Your task to perform on an android device: turn on showing notifications on the lock screen Image 0: 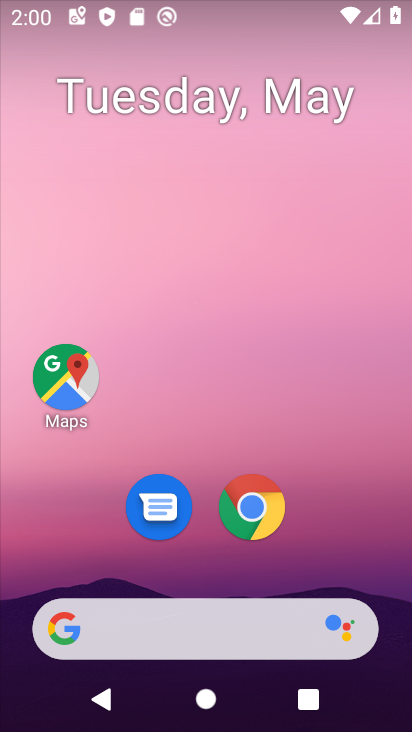
Step 0: drag from (311, 575) to (381, 52)
Your task to perform on an android device: turn on showing notifications on the lock screen Image 1: 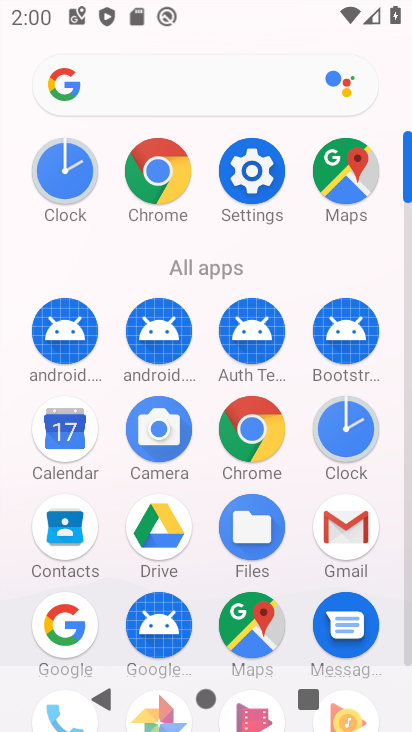
Step 1: click (241, 167)
Your task to perform on an android device: turn on showing notifications on the lock screen Image 2: 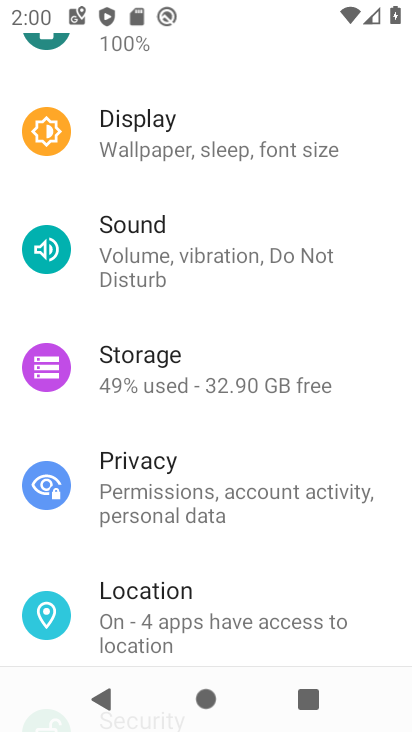
Step 2: drag from (203, 238) to (251, 447)
Your task to perform on an android device: turn on showing notifications on the lock screen Image 3: 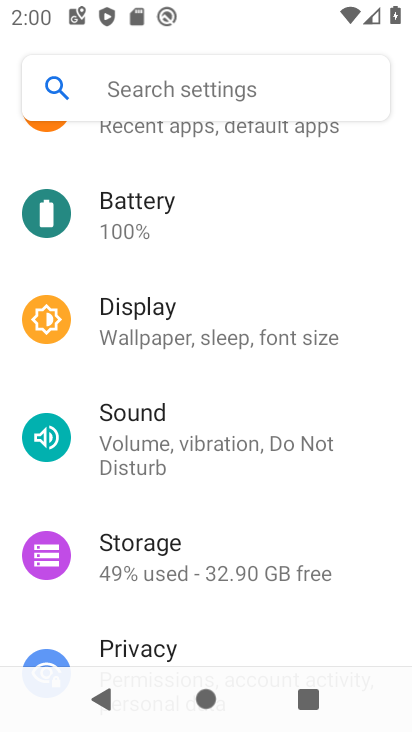
Step 3: drag from (206, 283) to (209, 463)
Your task to perform on an android device: turn on showing notifications on the lock screen Image 4: 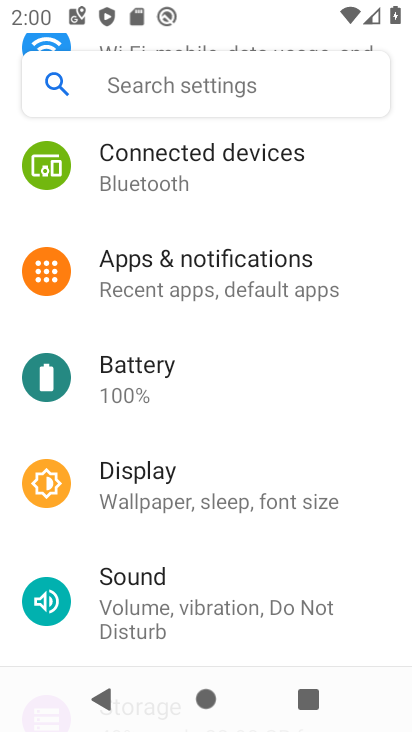
Step 4: click (158, 264)
Your task to perform on an android device: turn on showing notifications on the lock screen Image 5: 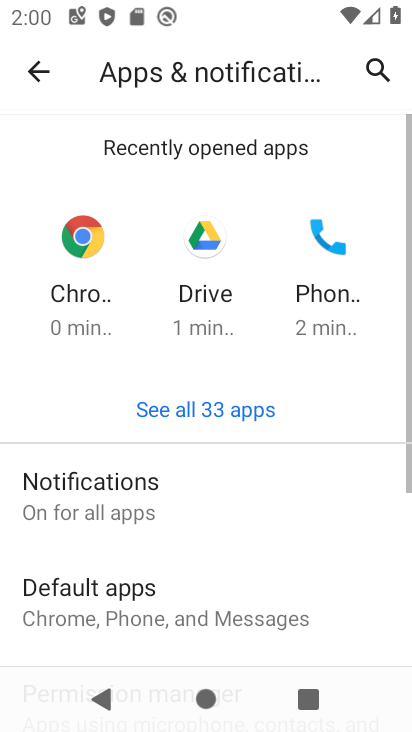
Step 5: click (164, 500)
Your task to perform on an android device: turn on showing notifications on the lock screen Image 6: 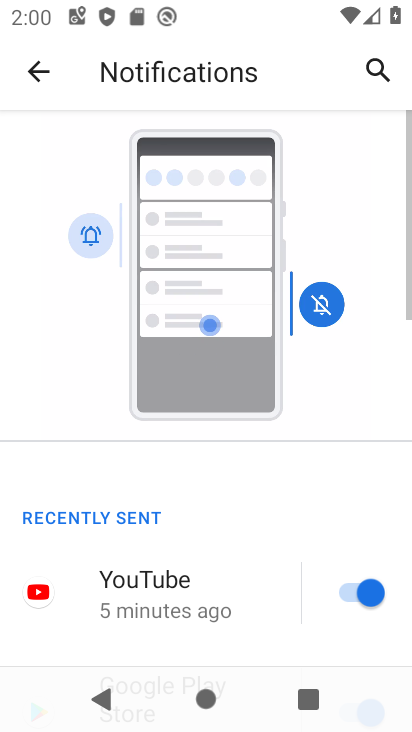
Step 6: drag from (159, 535) to (192, 169)
Your task to perform on an android device: turn on showing notifications on the lock screen Image 7: 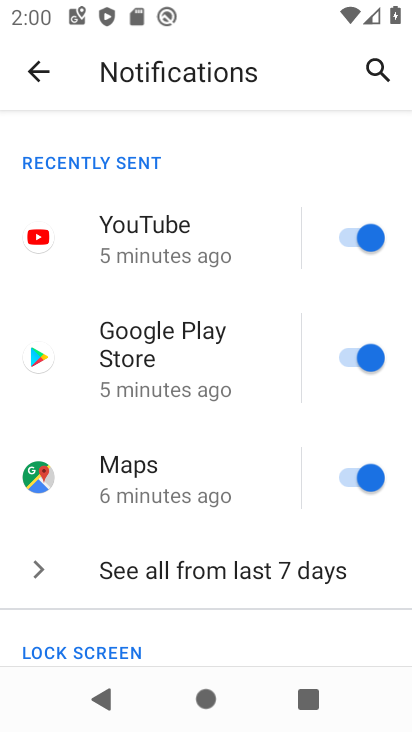
Step 7: drag from (150, 498) to (168, 222)
Your task to perform on an android device: turn on showing notifications on the lock screen Image 8: 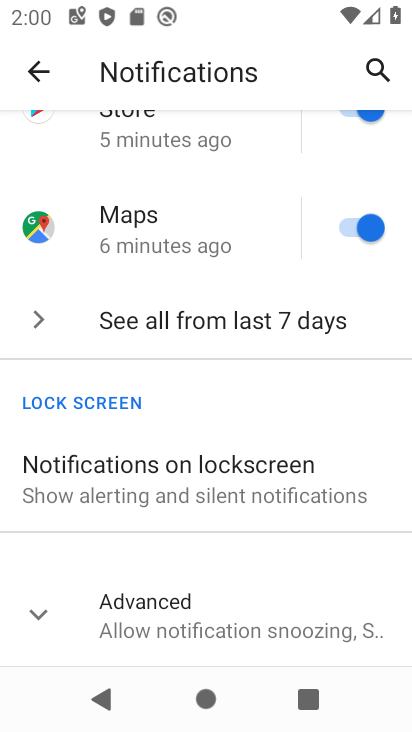
Step 8: click (136, 463)
Your task to perform on an android device: turn on showing notifications on the lock screen Image 9: 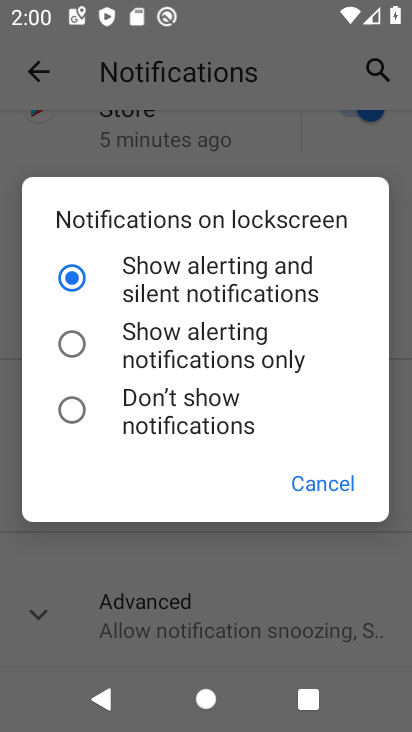
Step 9: click (144, 279)
Your task to perform on an android device: turn on showing notifications on the lock screen Image 10: 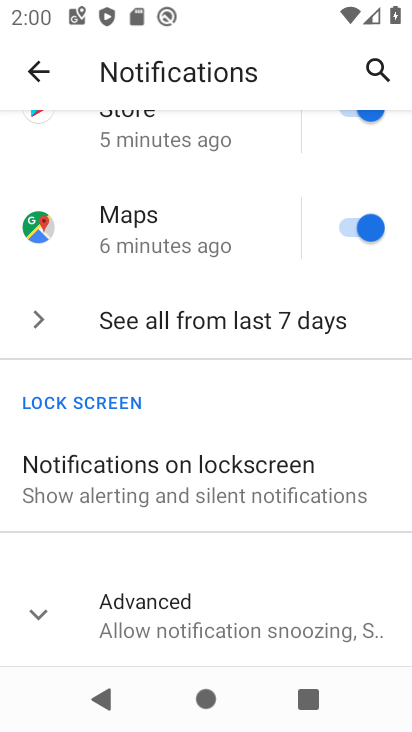
Step 10: task complete